Your task to perform on an android device: Open the Play Movies app and select the watchlist tab. Image 0: 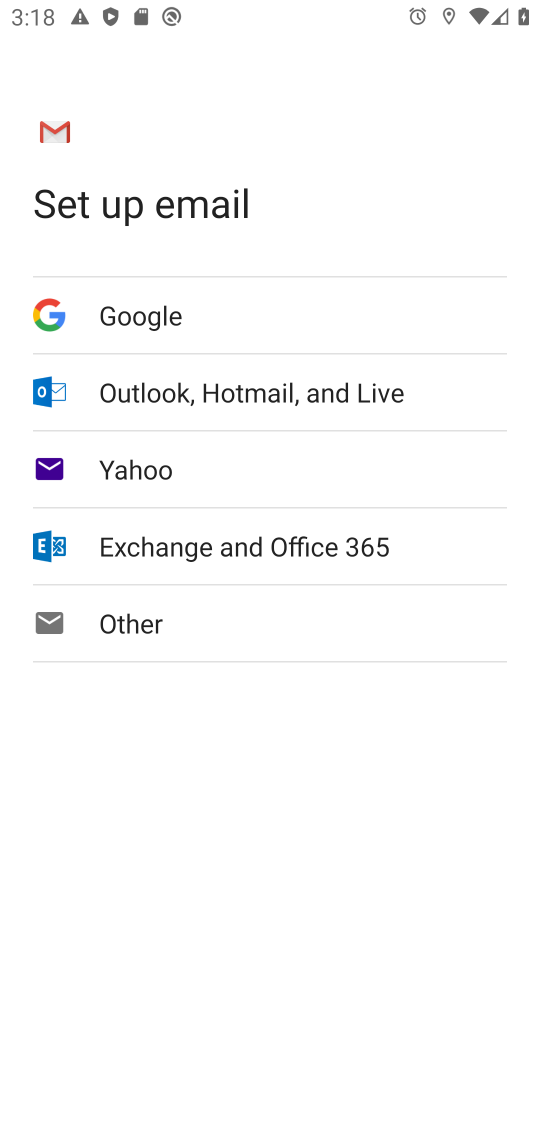
Step 0: press home button
Your task to perform on an android device: Open the Play Movies app and select the watchlist tab. Image 1: 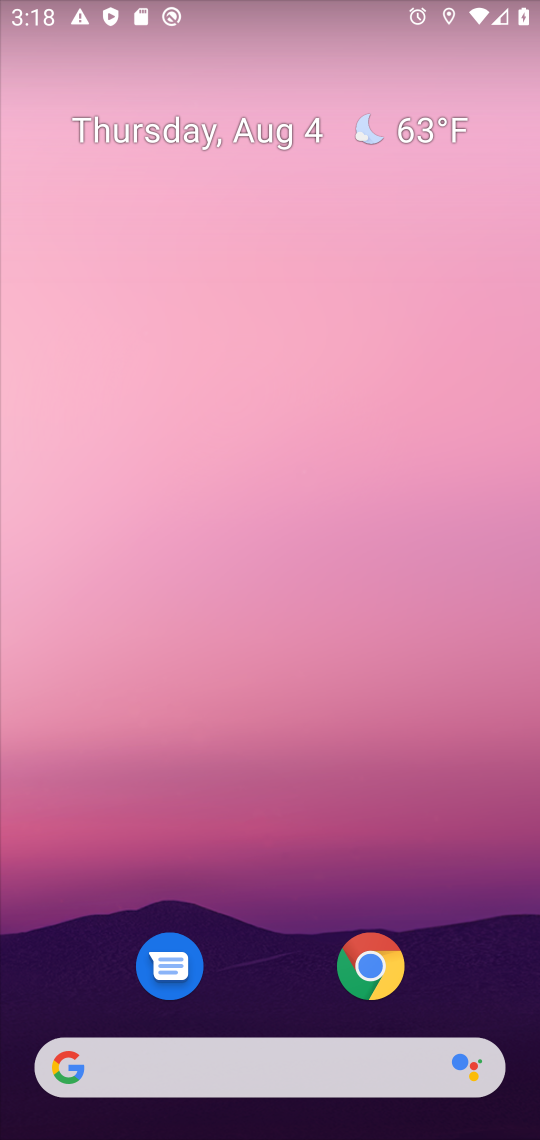
Step 1: drag from (283, 1049) to (238, 440)
Your task to perform on an android device: Open the Play Movies app and select the watchlist tab. Image 2: 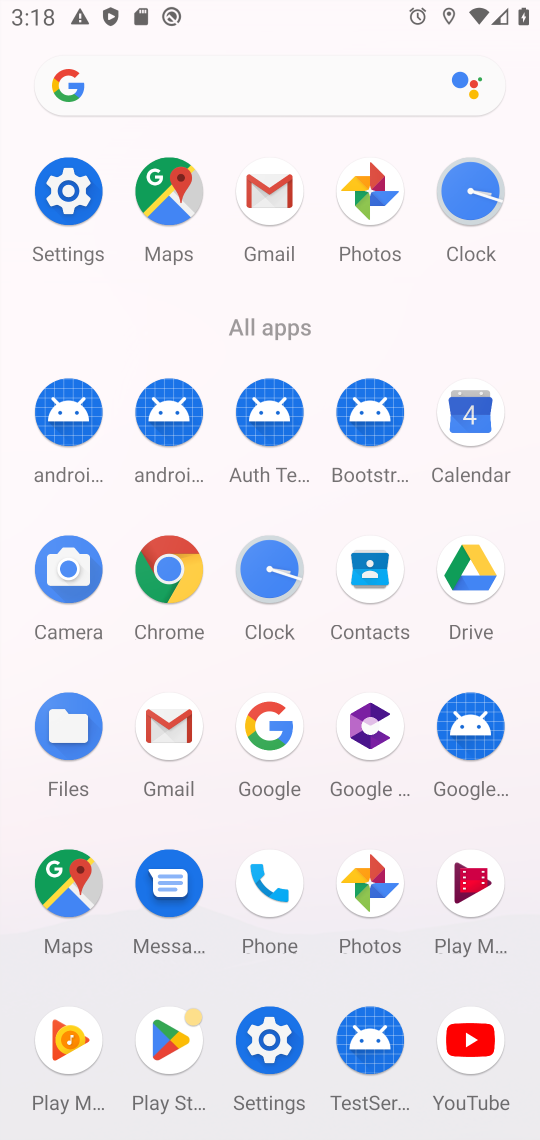
Step 2: click (472, 889)
Your task to perform on an android device: Open the Play Movies app and select the watchlist tab. Image 3: 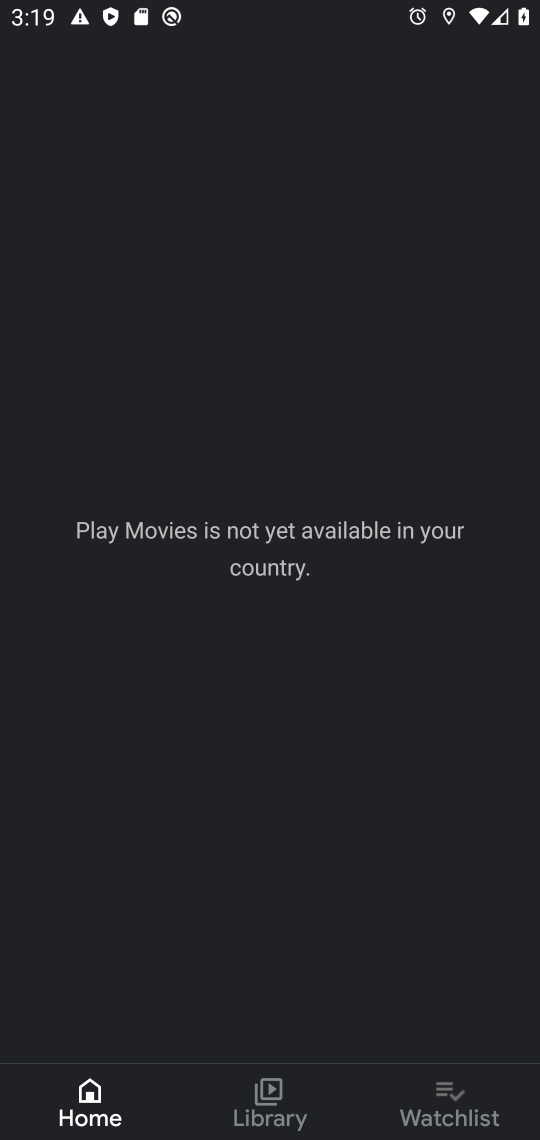
Step 3: click (433, 1105)
Your task to perform on an android device: Open the Play Movies app and select the watchlist tab. Image 4: 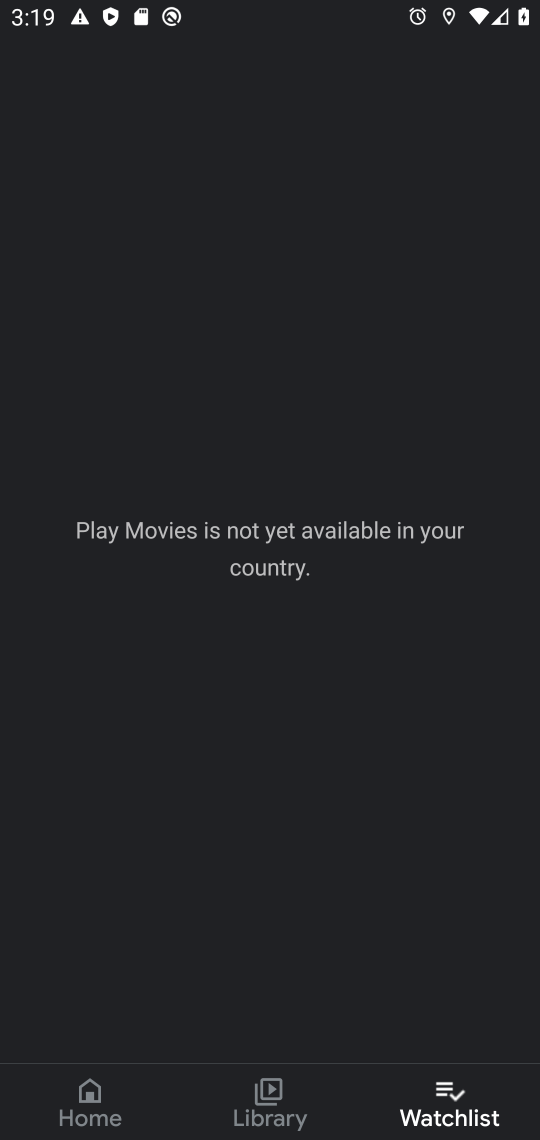
Step 4: task complete